Your task to perform on an android device: toggle improve location accuracy Image 0: 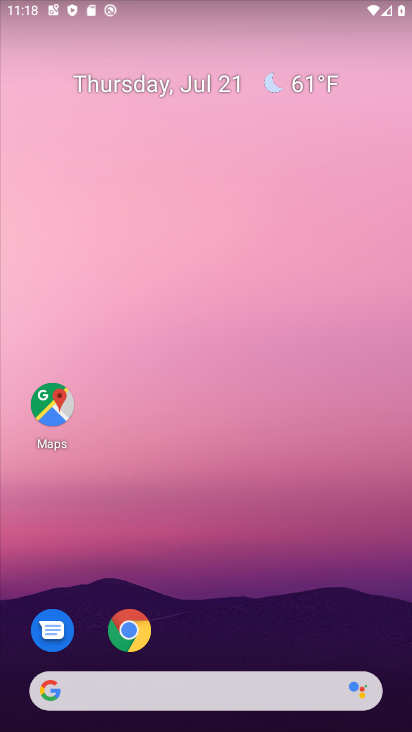
Step 0: drag from (193, 686) to (193, 245)
Your task to perform on an android device: toggle improve location accuracy Image 1: 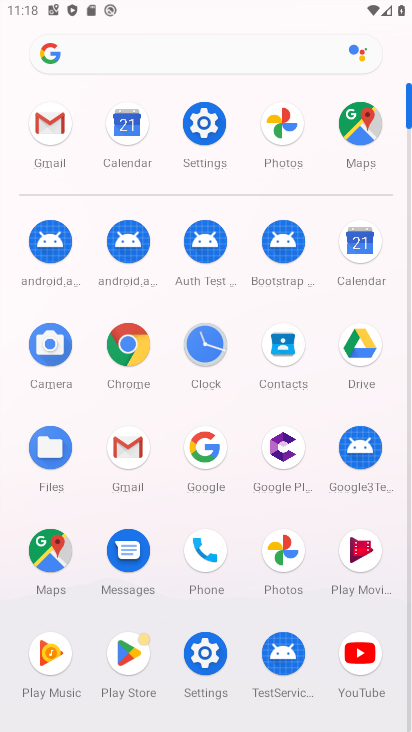
Step 1: click (209, 125)
Your task to perform on an android device: toggle improve location accuracy Image 2: 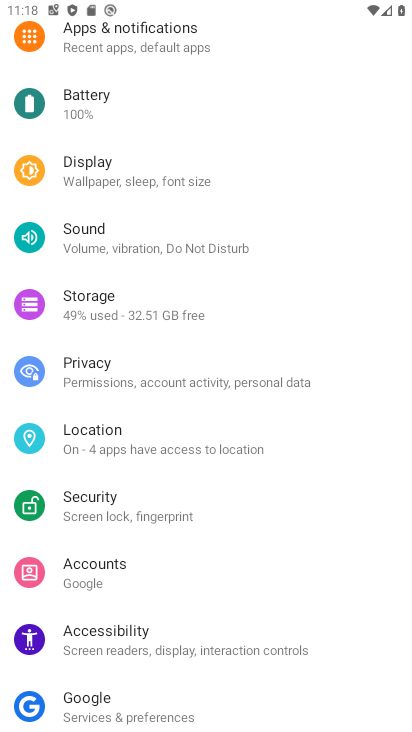
Step 2: click (90, 437)
Your task to perform on an android device: toggle improve location accuracy Image 3: 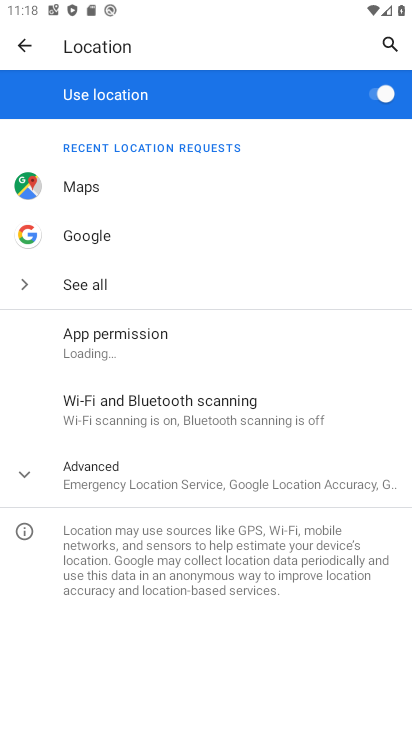
Step 3: click (109, 471)
Your task to perform on an android device: toggle improve location accuracy Image 4: 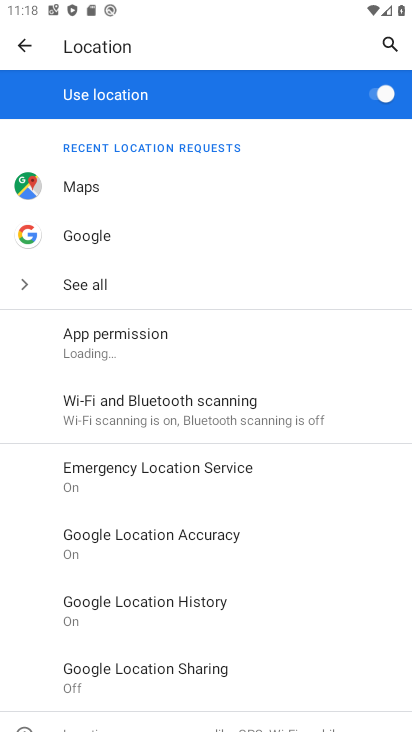
Step 4: click (150, 538)
Your task to perform on an android device: toggle improve location accuracy Image 5: 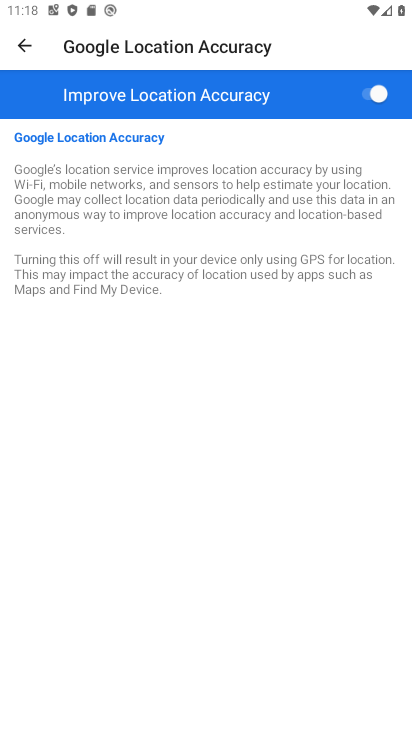
Step 5: click (368, 95)
Your task to perform on an android device: toggle improve location accuracy Image 6: 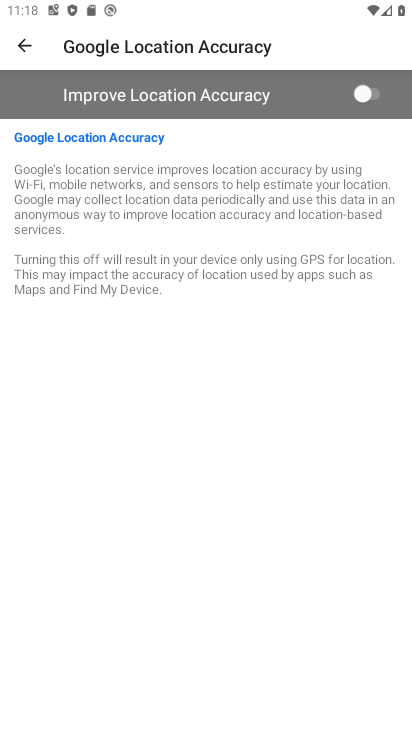
Step 6: task complete